Your task to perform on an android device: toggle javascript in the chrome app Image 0: 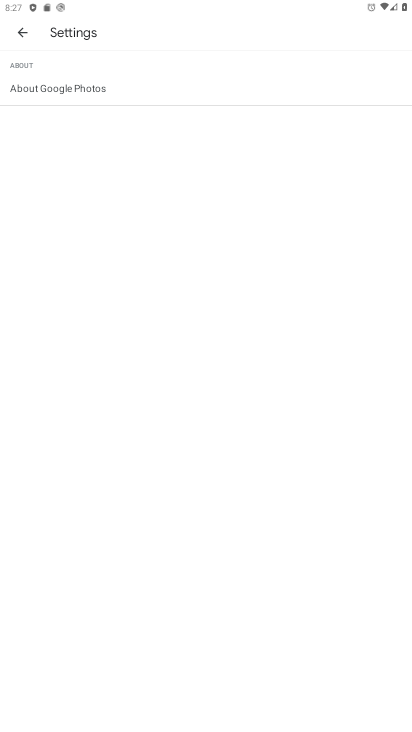
Step 0: press home button
Your task to perform on an android device: toggle javascript in the chrome app Image 1: 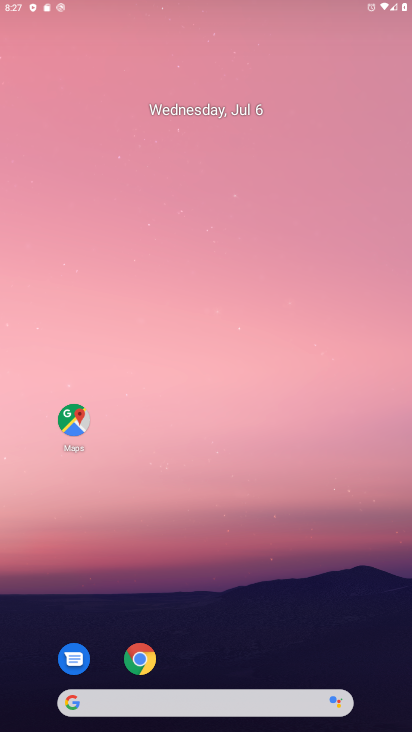
Step 1: drag from (249, 590) to (368, 68)
Your task to perform on an android device: toggle javascript in the chrome app Image 2: 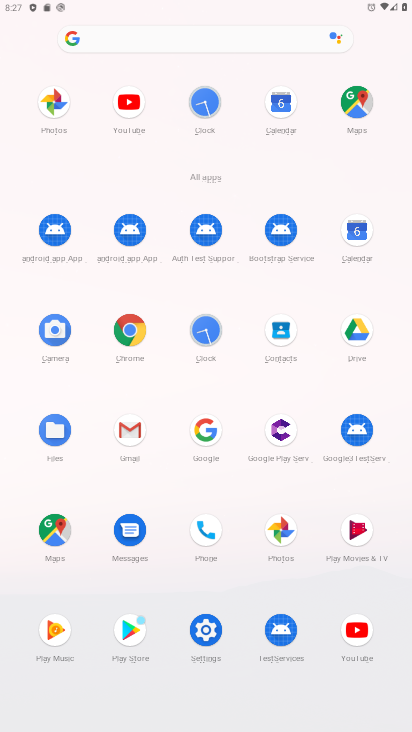
Step 2: click (135, 335)
Your task to perform on an android device: toggle javascript in the chrome app Image 3: 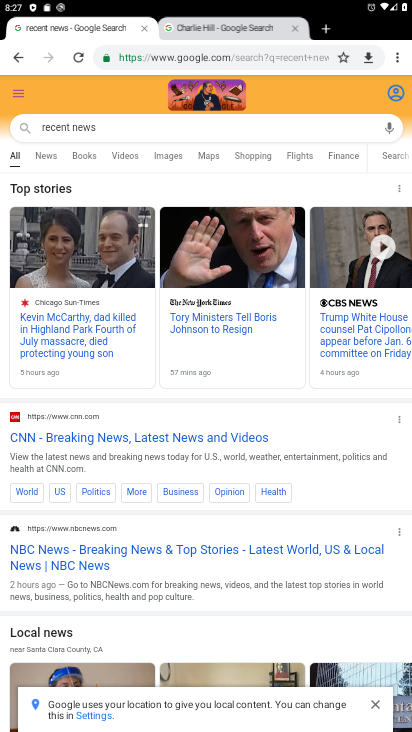
Step 3: click (398, 59)
Your task to perform on an android device: toggle javascript in the chrome app Image 4: 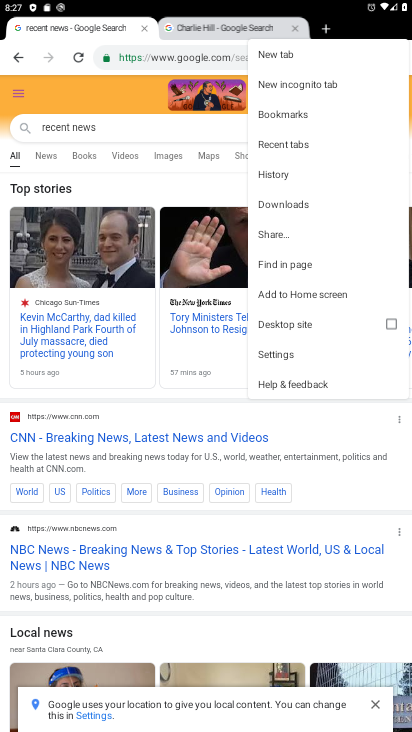
Step 4: click (275, 355)
Your task to perform on an android device: toggle javascript in the chrome app Image 5: 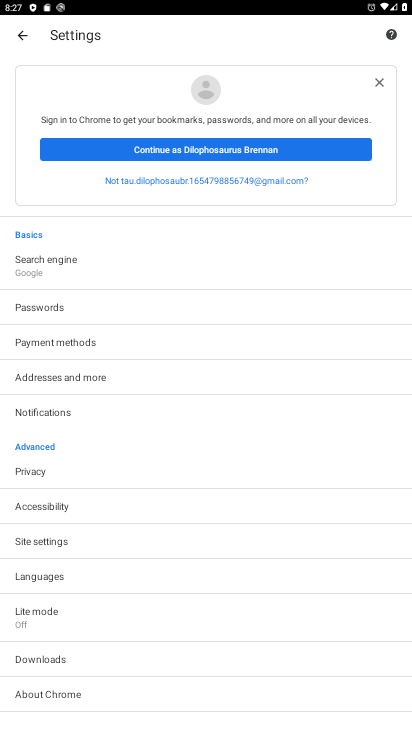
Step 5: click (85, 538)
Your task to perform on an android device: toggle javascript in the chrome app Image 6: 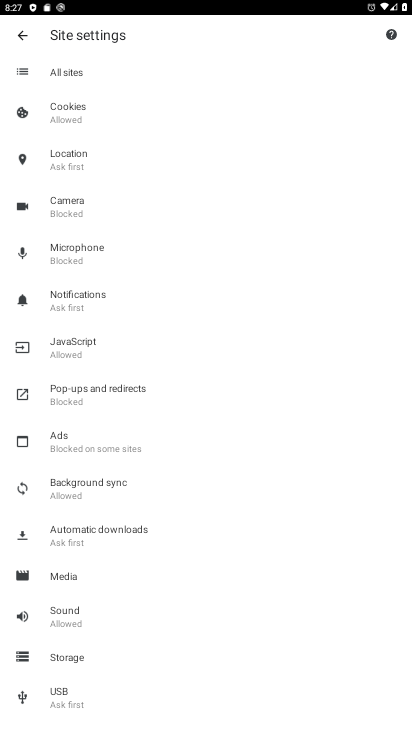
Step 6: click (115, 338)
Your task to perform on an android device: toggle javascript in the chrome app Image 7: 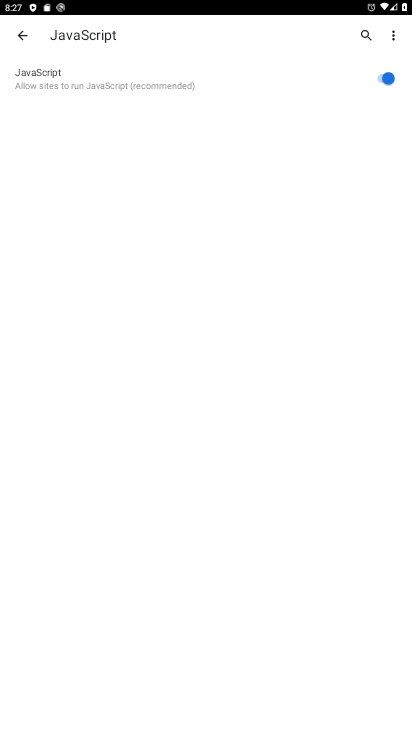
Step 7: click (388, 81)
Your task to perform on an android device: toggle javascript in the chrome app Image 8: 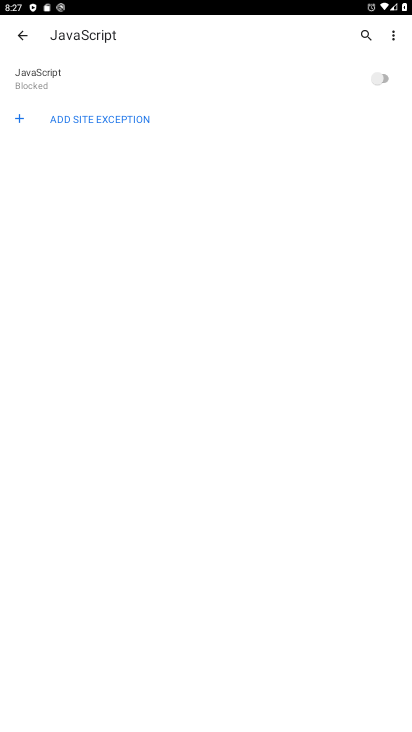
Step 8: task complete